Your task to perform on an android device: Open Chrome and go to settings Image 0: 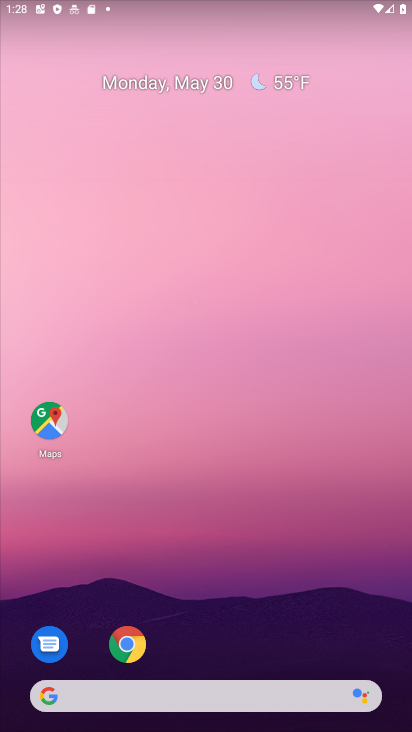
Step 0: click (306, 639)
Your task to perform on an android device: Open Chrome and go to settings Image 1: 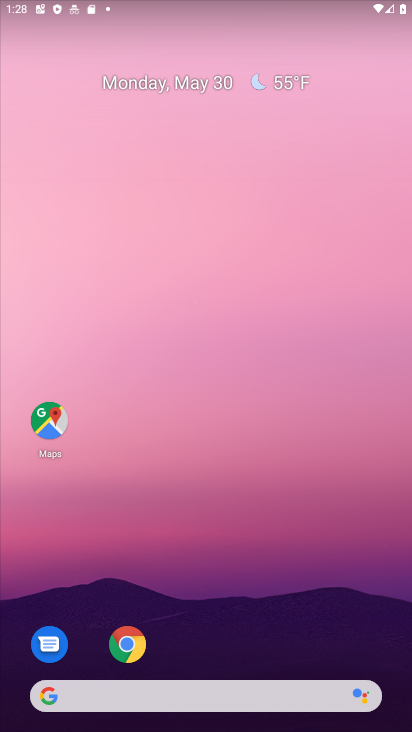
Step 1: click (110, 639)
Your task to perform on an android device: Open Chrome and go to settings Image 2: 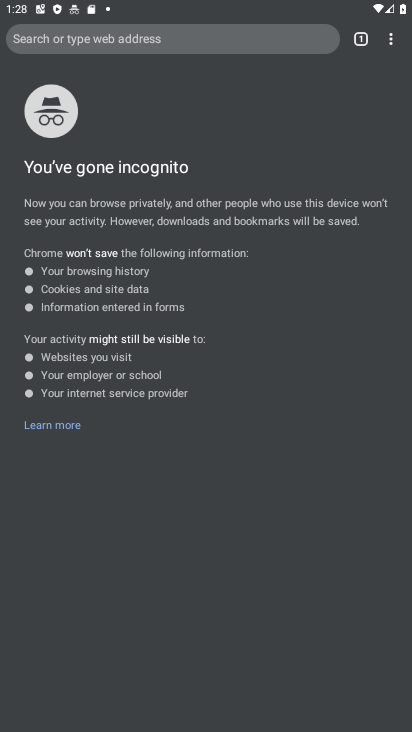
Step 2: click (389, 52)
Your task to perform on an android device: Open Chrome and go to settings Image 3: 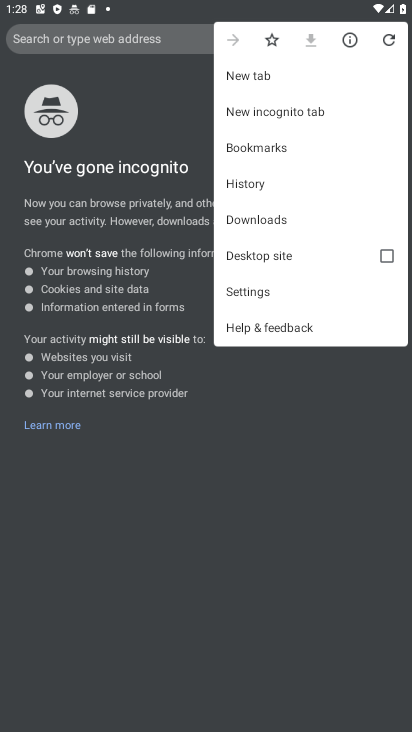
Step 3: click (284, 295)
Your task to perform on an android device: Open Chrome and go to settings Image 4: 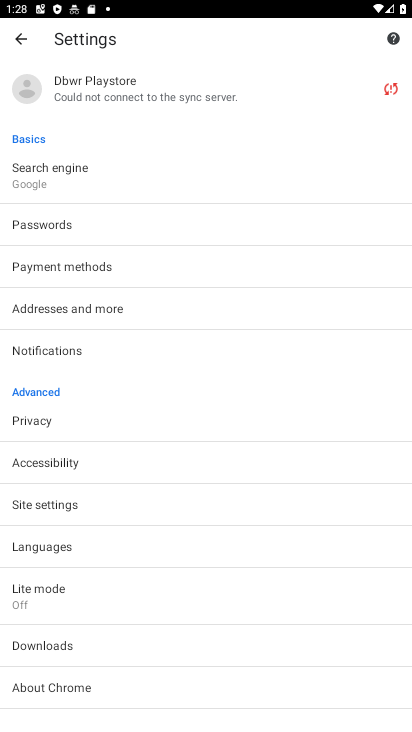
Step 4: task complete